Your task to perform on an android device: change keyboard looks Image 0: 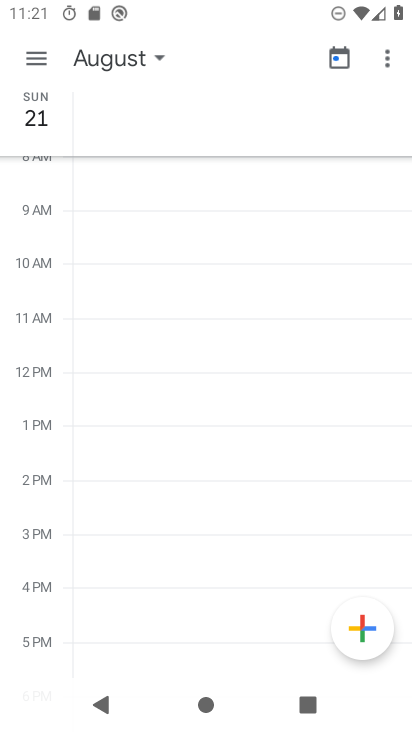
Step 0: press home button
Your task to perform on an android device: change keyboard looks Image 1: 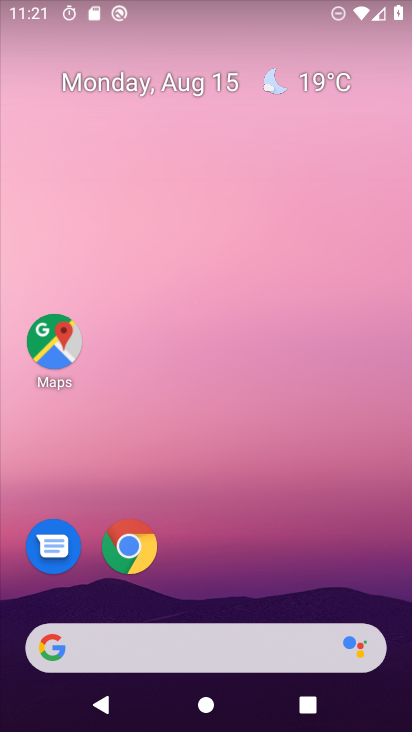
Step 1: drag from (232, 610) to (217, 74)
Your task to perform on an android device: change keyboard looks Image 2: 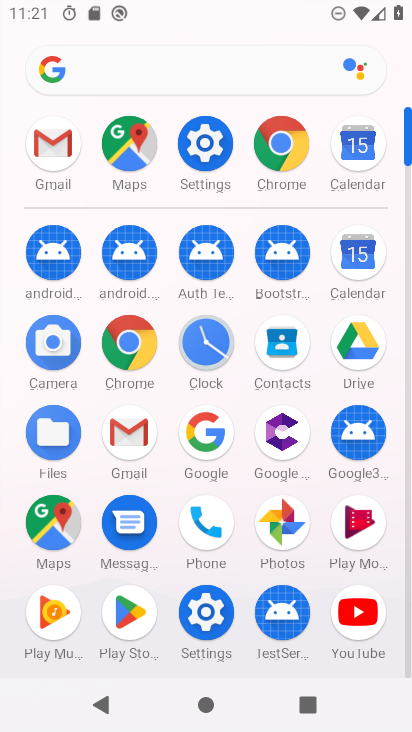
Step 2: click (210, 141)
Your task to perform on an android device: change keyboard looks Image 3: 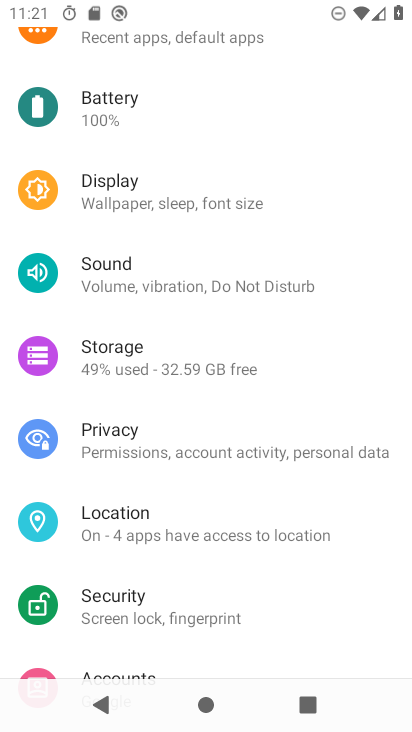
Step 3: drag from (140, 644) to (141, 254)
Your task to perform on an android device: change keyboard looks Image 4: 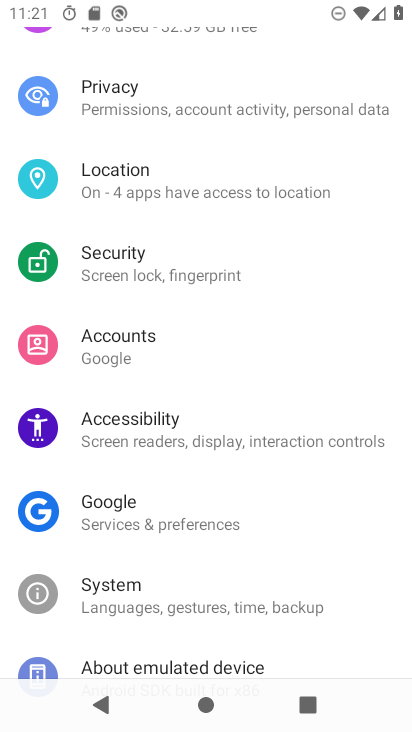
Step 4: drag from (145, 640) to (146, 326)
Your task to perform on an android device: change keyboard looks Image 5: 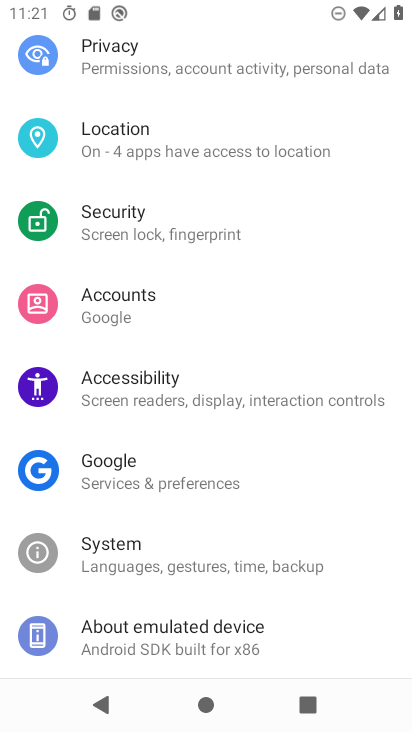
Step 5: click (104, 545)
Your task to perform on an android device: change keyboard looks Image 6: 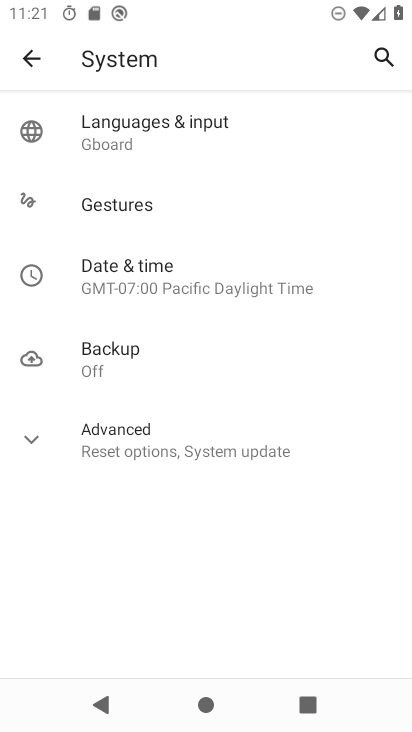
Step 6: click (104, 128)
Your task to perform on an android device: change keyboard looks Image 7: 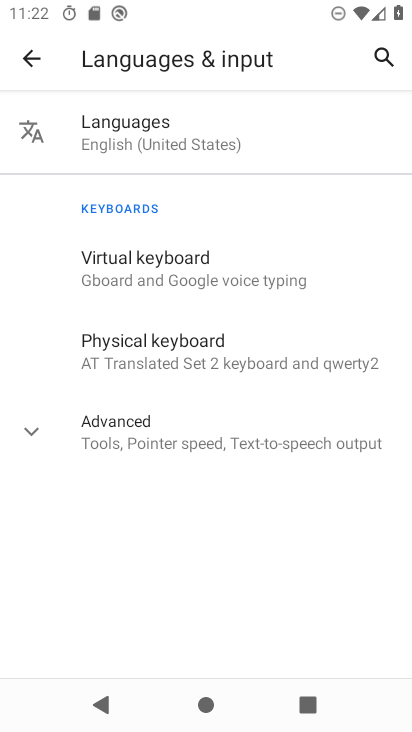
Step 7: click (128, 267)
Your task to perform on an android device: change keyboard looks Image 8: 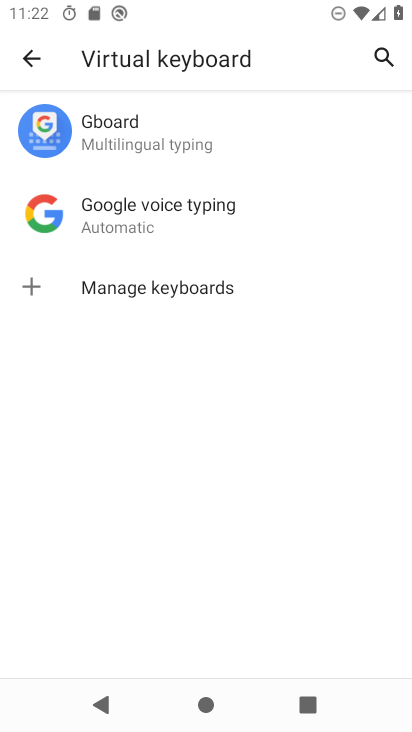
Step 8: click (115, 131)
Your task to perform on an android device: change keyboard looks Image 9: 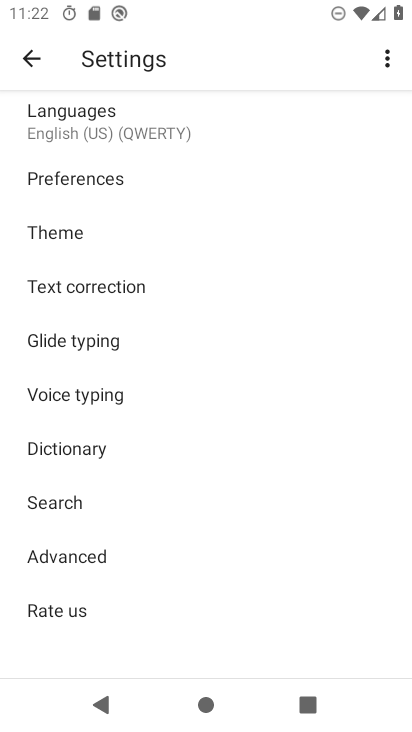
Step 9: click (50, 232)
Your task to perform on an android device: change keyboard looks Image 10: 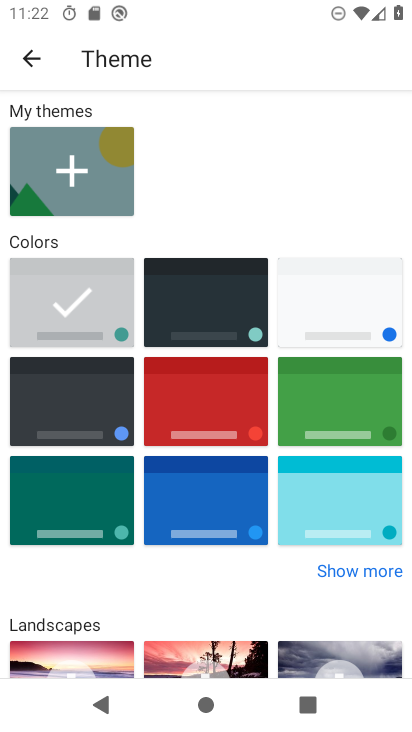
Step 10: click (199, 296)
Your task to perform on an android device: change keyboard looks Image 11: 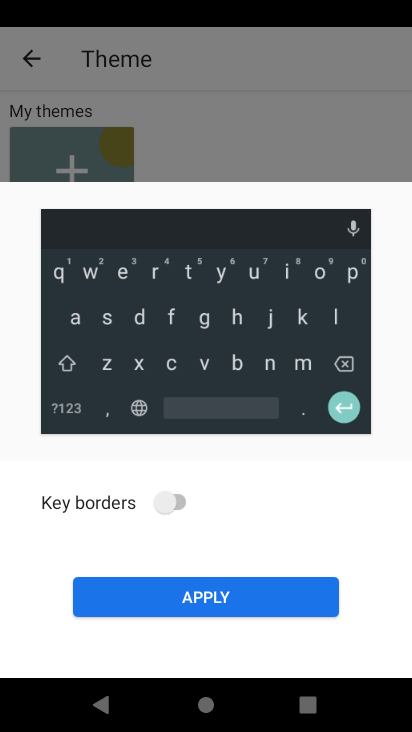
Step 11: click (179, 501)
Your task to perform on an android device: change keyboard looks Image 12: 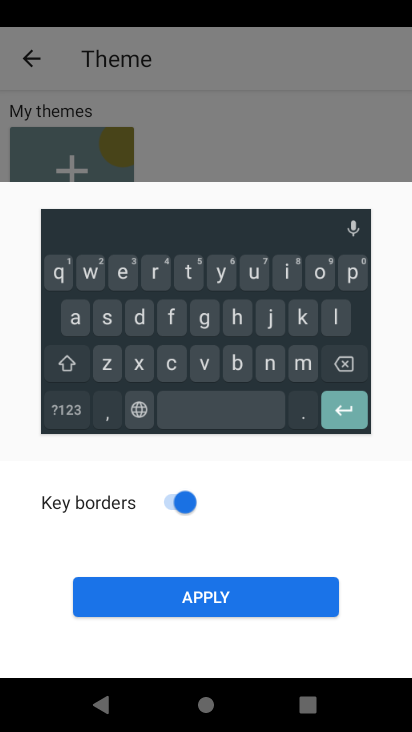
Step 12: click (227, 591)
Your task to perform on an android device: change keyboard looks Image 13: 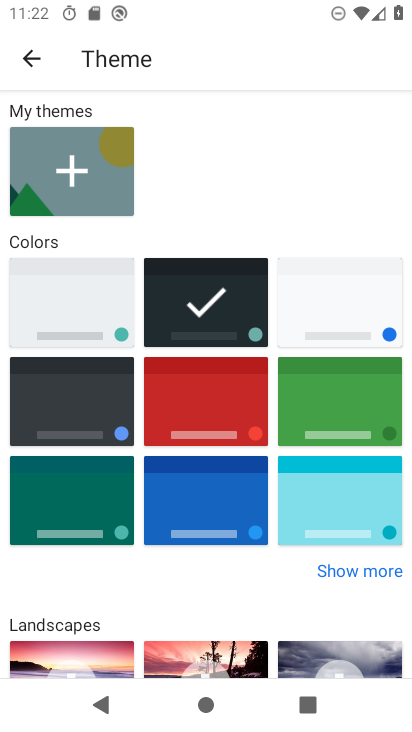
Step 13: task complete